Your task to perform on an android device: search for starred emails in the gmail app Image 0: 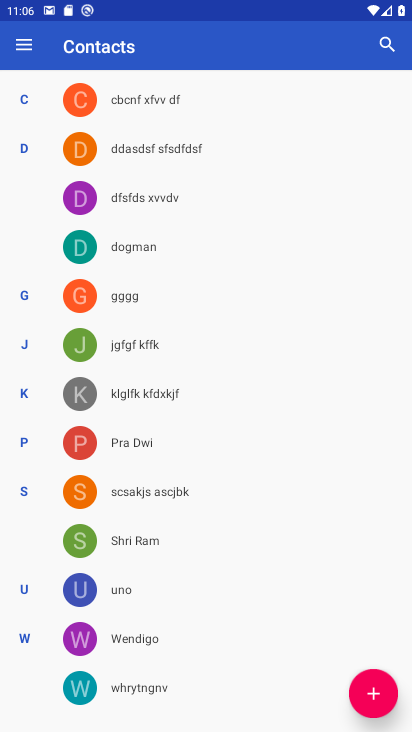
Step 0: drag from (268, 656) to (382, 524)
Your task to perform on an android device: search for starred emails in the gmail app Image 1: 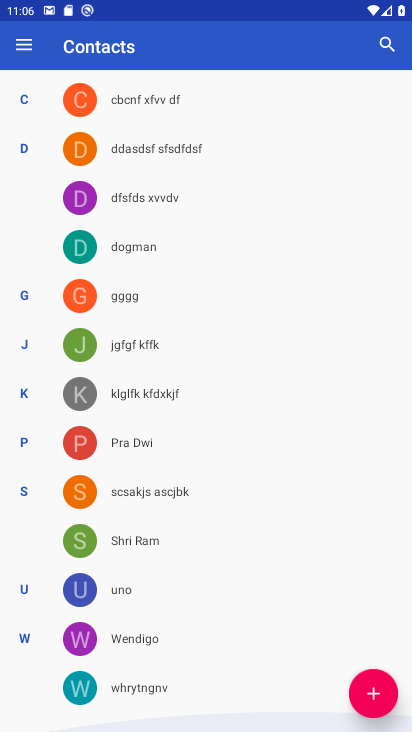
Step 1: press home button
Your task to perform on an android device: search for starred emails in the gmail app Image 2: 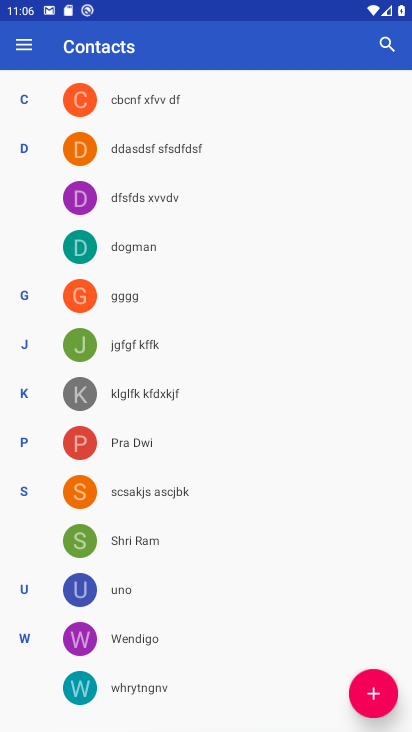
Step 2: drag from (382, 524) to (409, 661)
Your task to perform on an android device: search for starred emails in the gmail app Image 3: 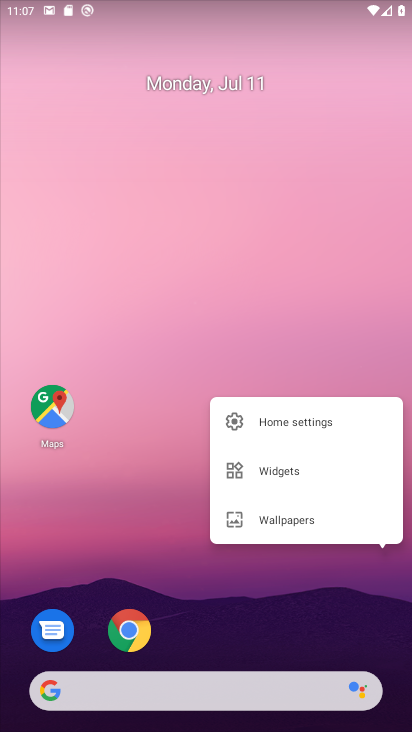
Step 3: click (174, 279)
Your task to perform on an android device: search for starred emails in the gmail app Image 4: 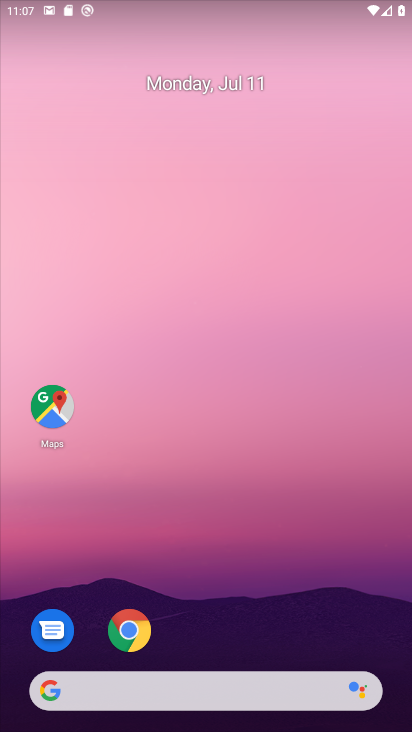
Step 4: drag from (235, 435) to (367, 71)
Your task to perform on an android device: search for starred emails in the gmail app Image 5: 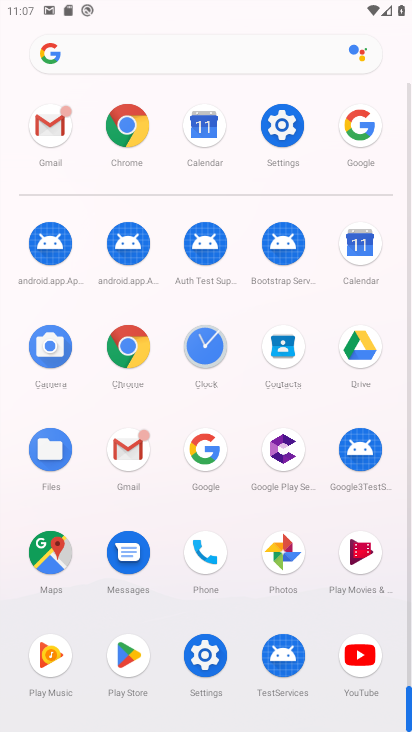
Step 5: click (118, 456)
Your task to perform on an android device: search for starred emails in the gmail app Image 6: 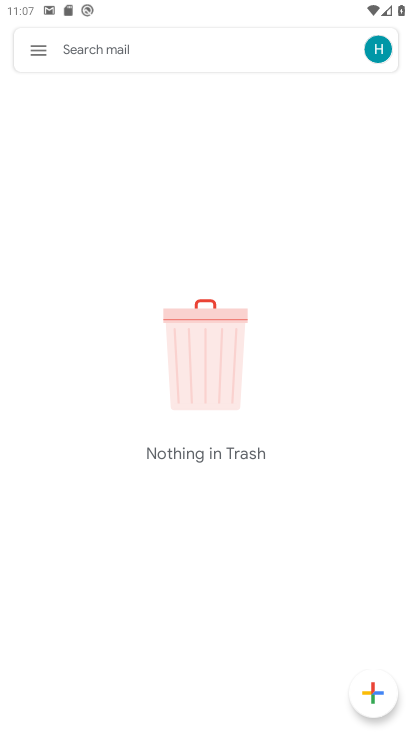
Step 6: click (36, 52)
Your task to perform on an android device: search for starred emails in the gmail app Image 7: 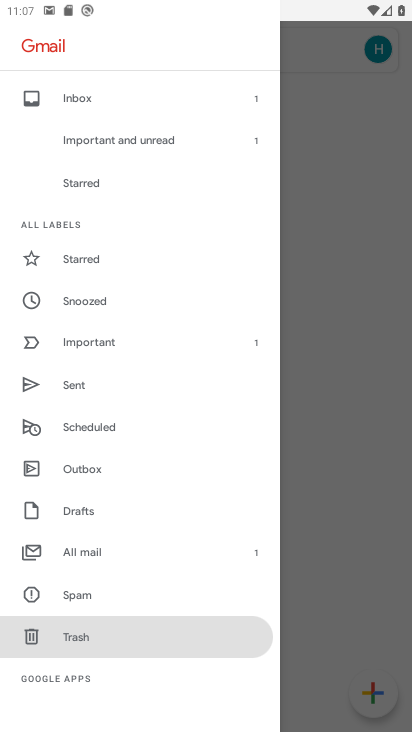
Step 7: click (110, 261)
Your task to perform on an android device: search for starred emails in the gmail app Image 8: 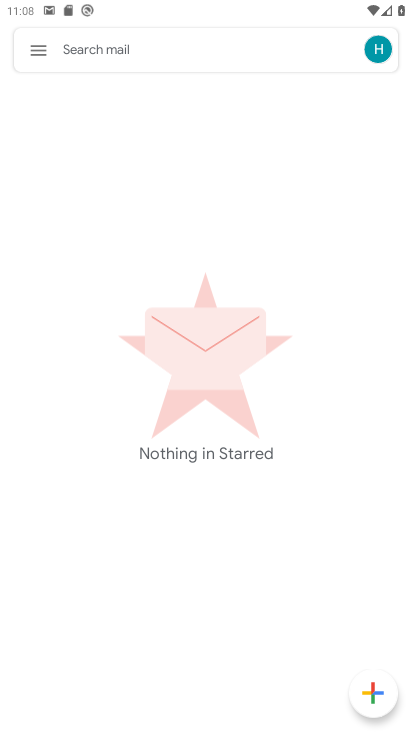
Step 8: task complete